Your task to perform on an android device: turn off sleep mode Image 0: 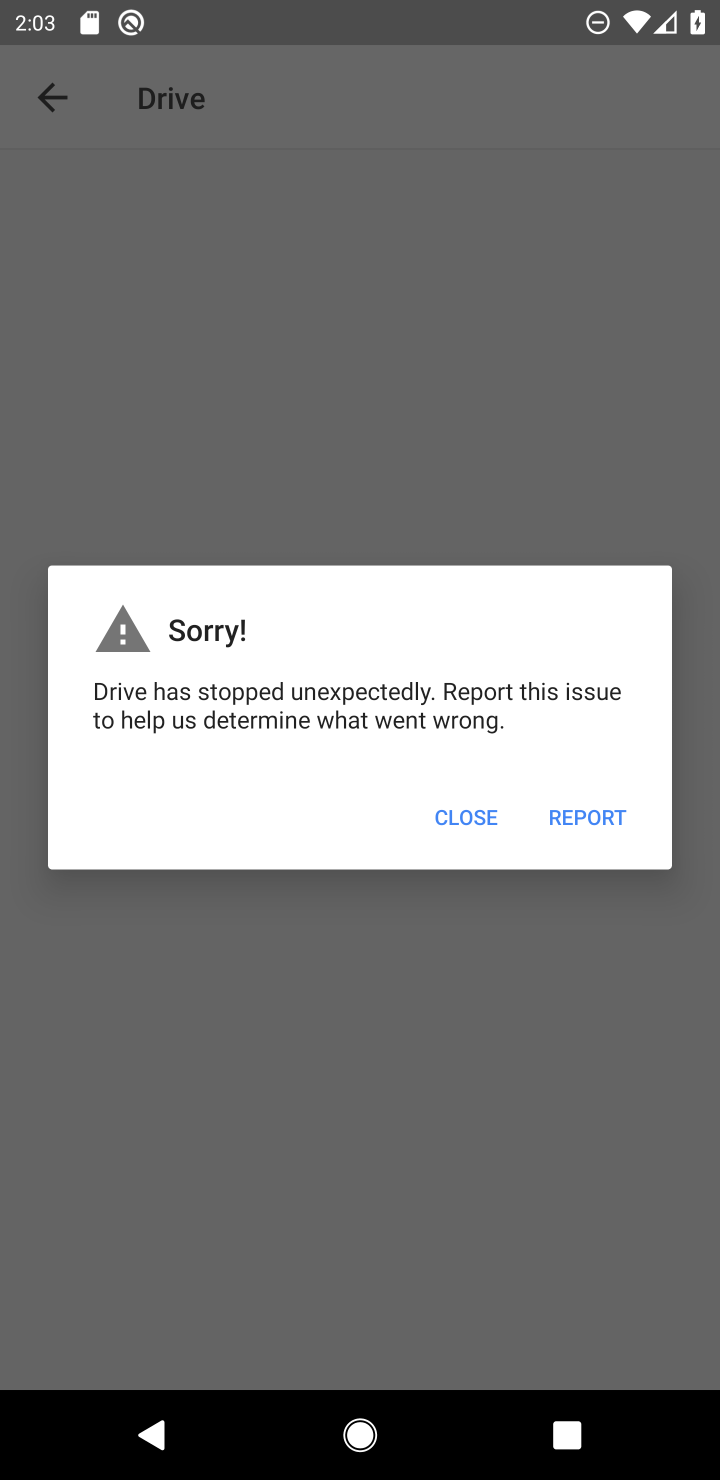
Step 0: click (476, 819)
Your task to perform on an android device: turn off sleep mode Image 1: 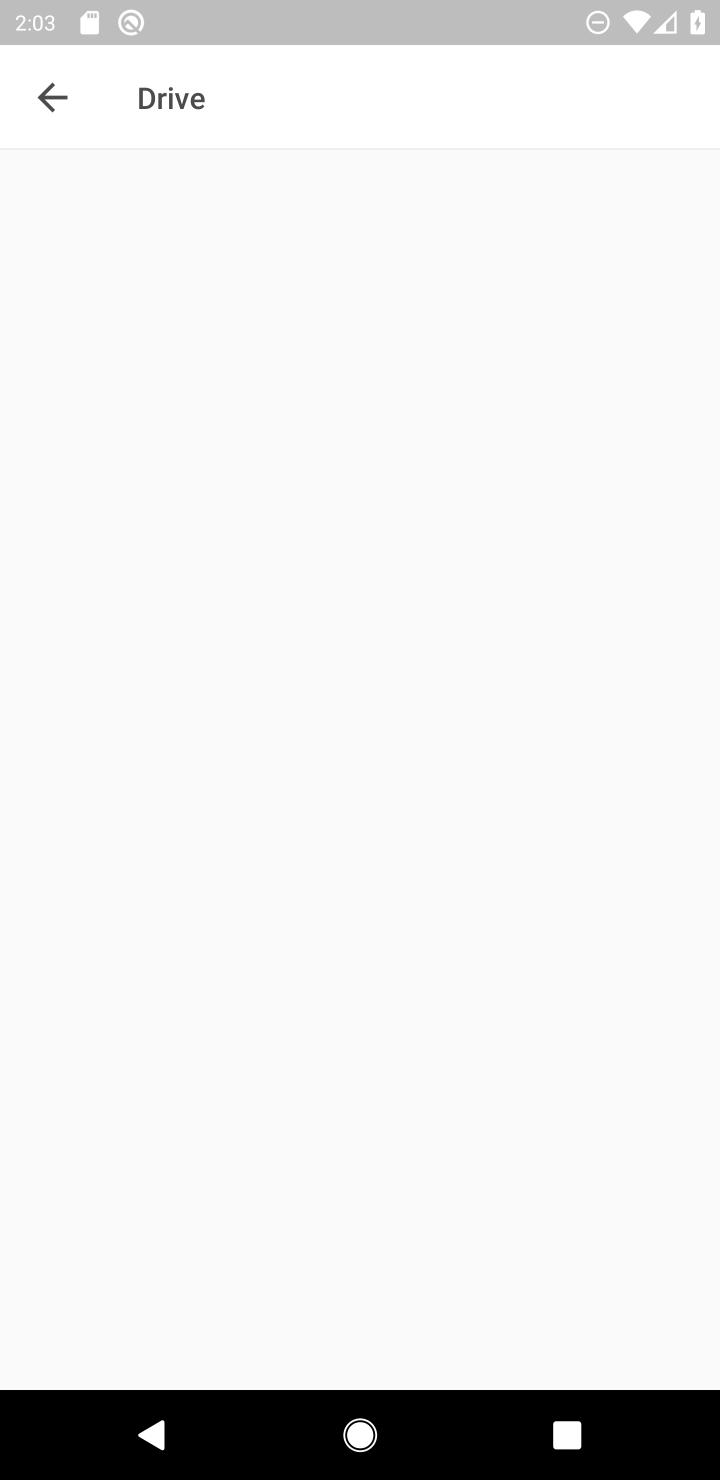
Step 1: press home button
Your task to perform on an android device: turn off sleep mode Image 2: 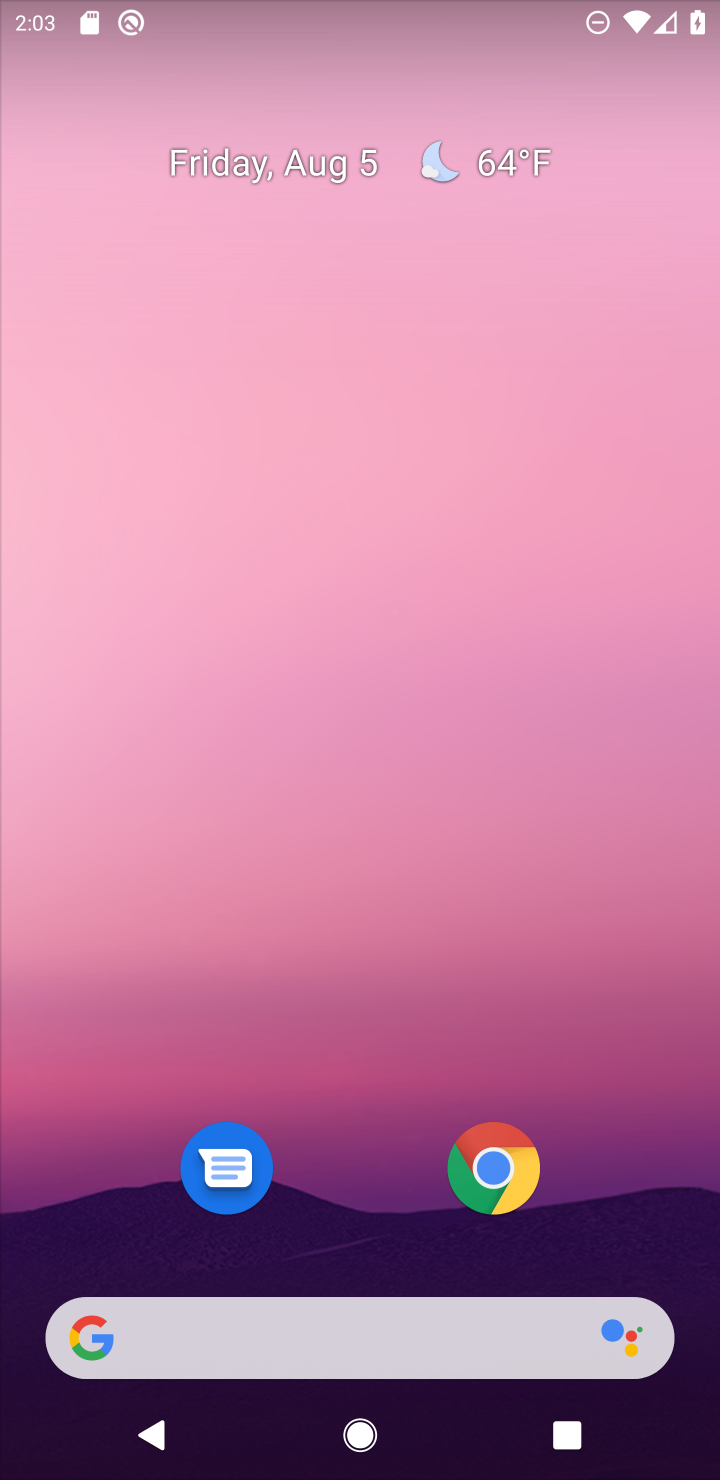
Step 2: drag from (326, 253) to (193, 0)
Your task to perform on an android device: turn off sleep mode Image 3: 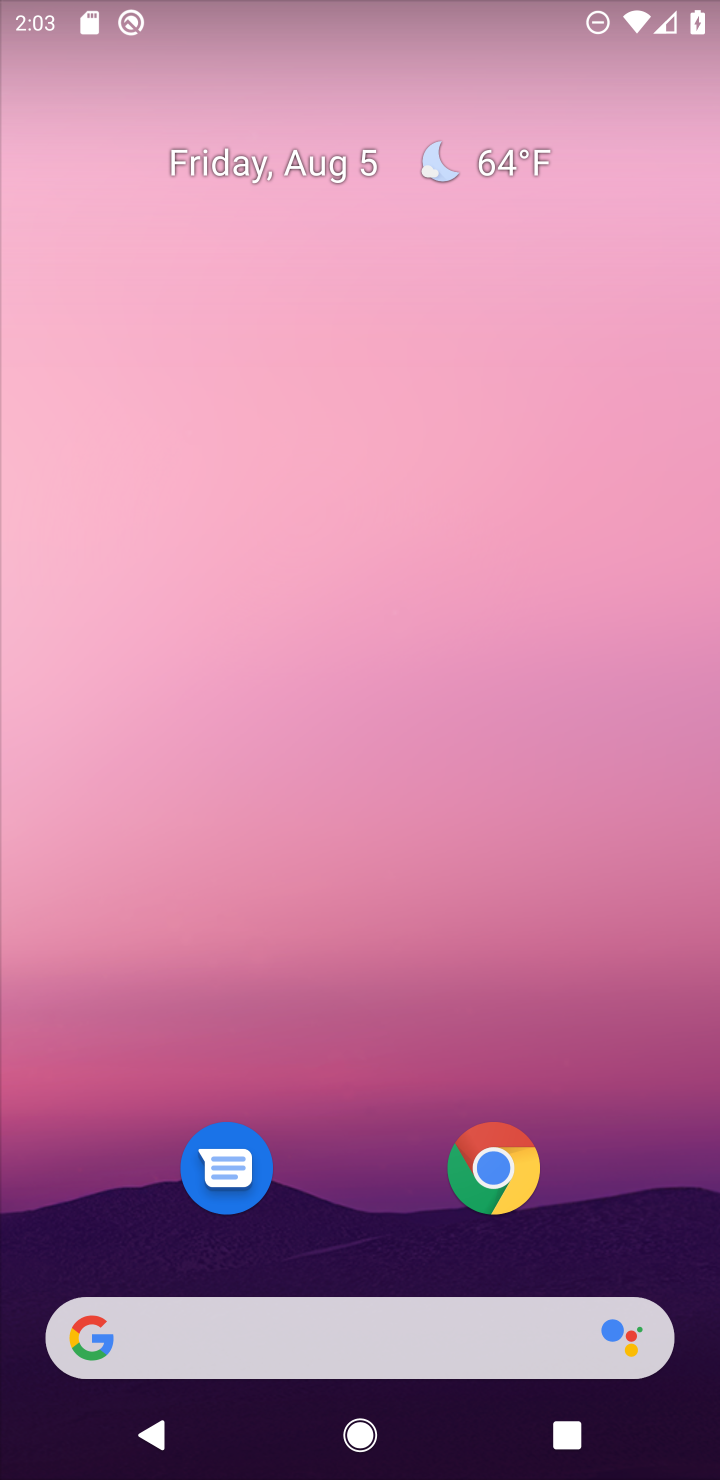
Step 3: drag from (675, 1253) to (347, 14)
Your task to perform on an android device: turn off sleep mode Image 4: 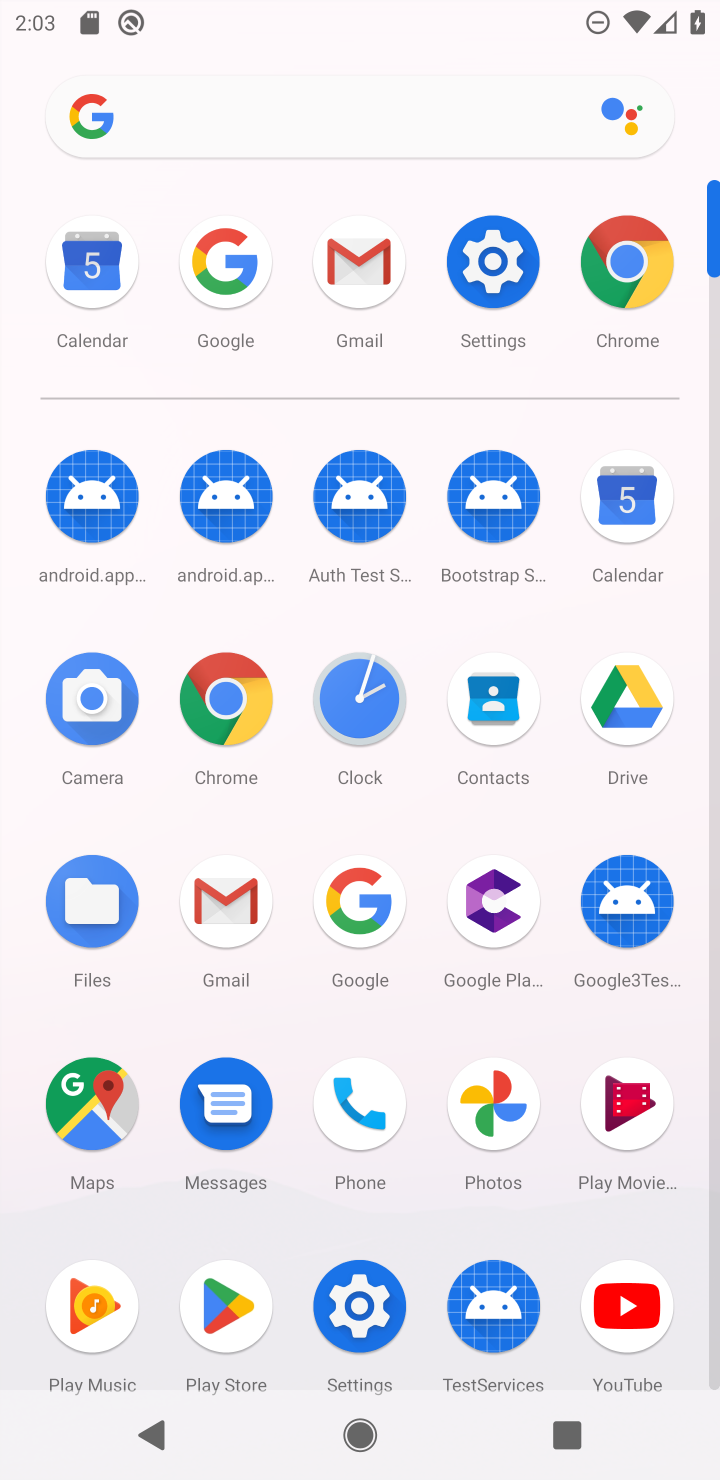
Step 4: click (478, 294)
Your task to perform on an android device: turn off sleep mode Image 5: 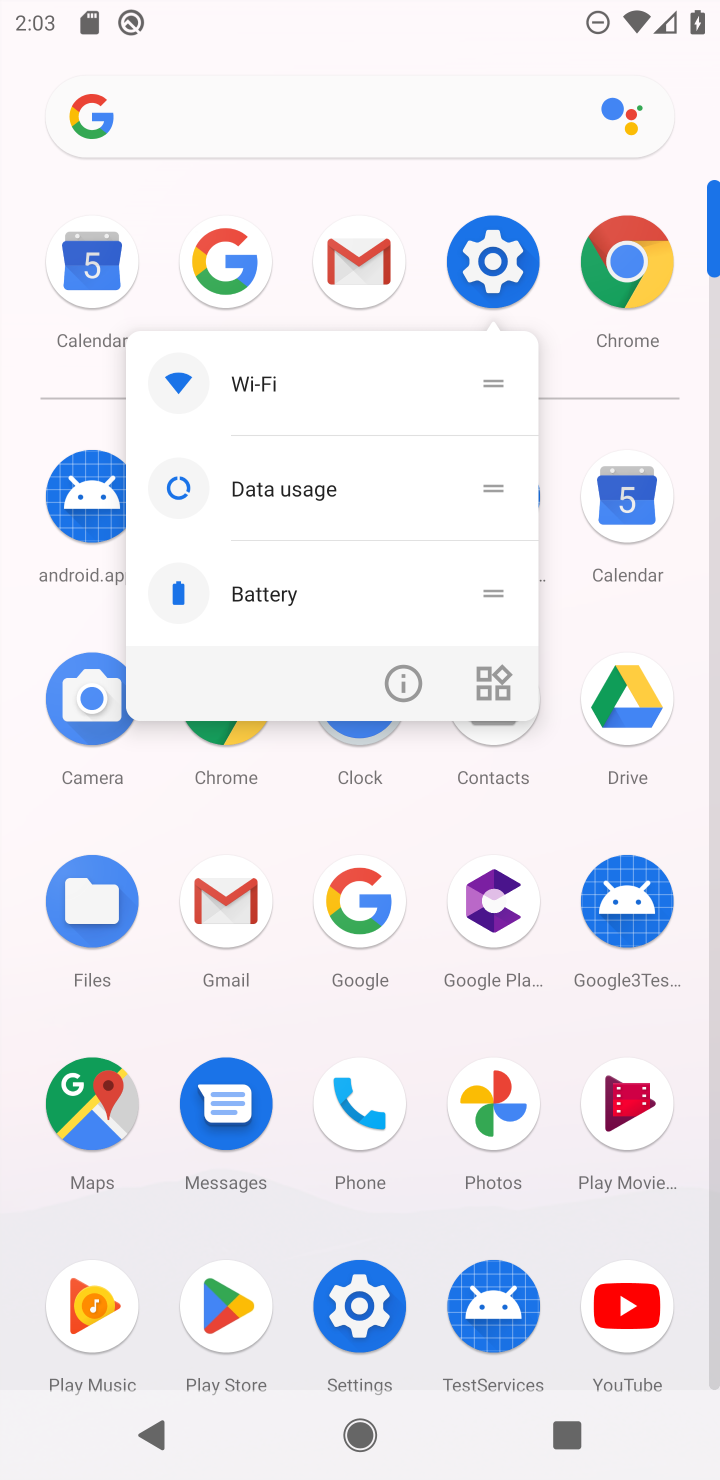
Step 5: click (478, 294)
Your task to perform on an android device: turn off sleep mode Image 6: 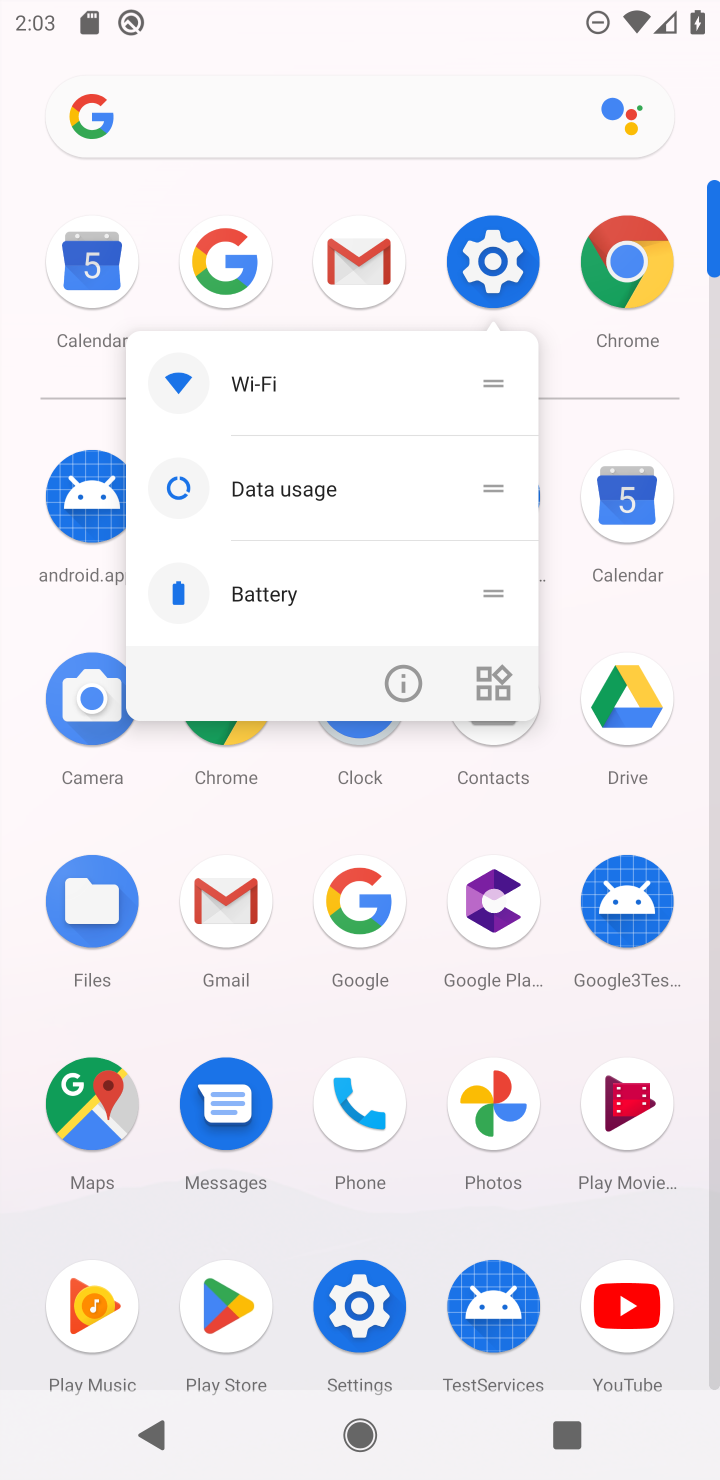
Step 6: click (478, 294)
Your task to perform on an android device: turn off sleep mode Image 7: 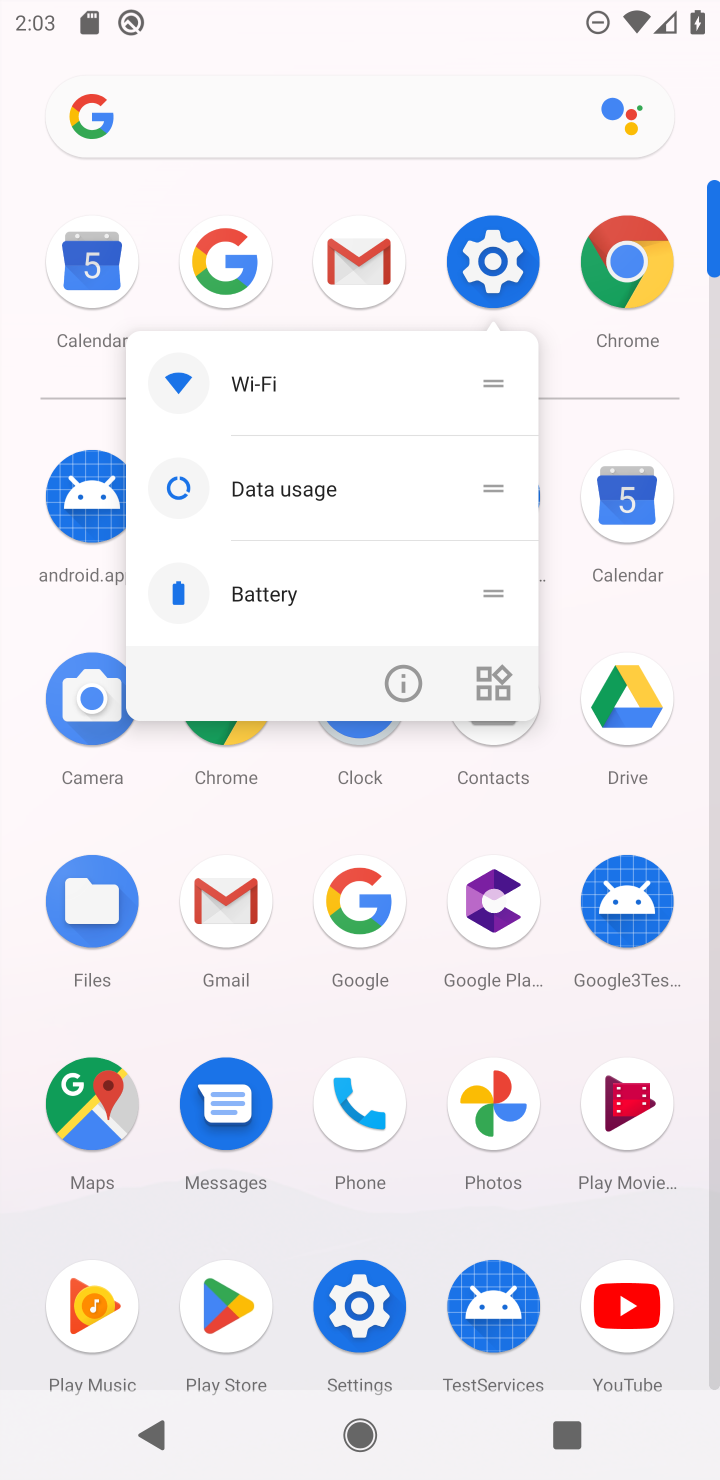
Step 7: click (478, 294)
Your task to perform on an android device: turn off sleep mode Image 8: 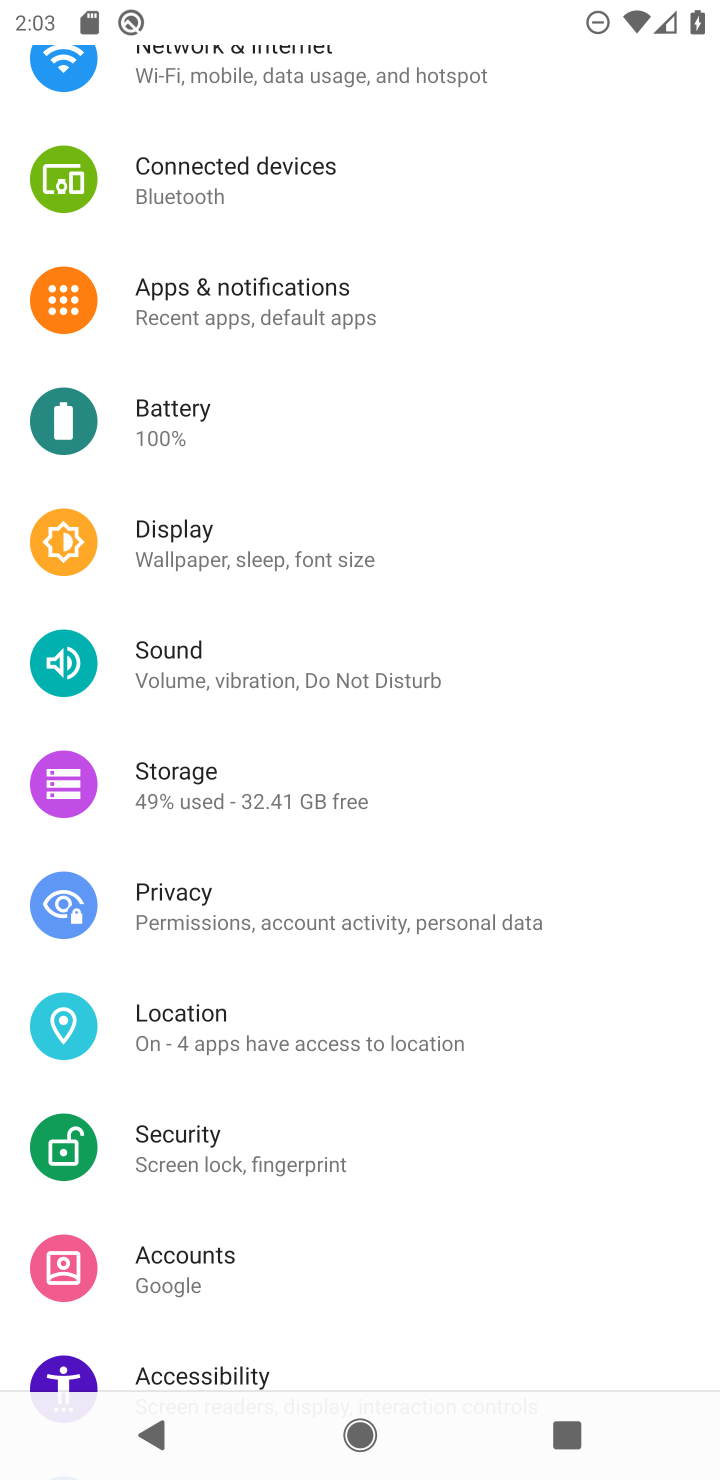
Step 8: task complete